Your task to perform on an android device: check android version Image 0: 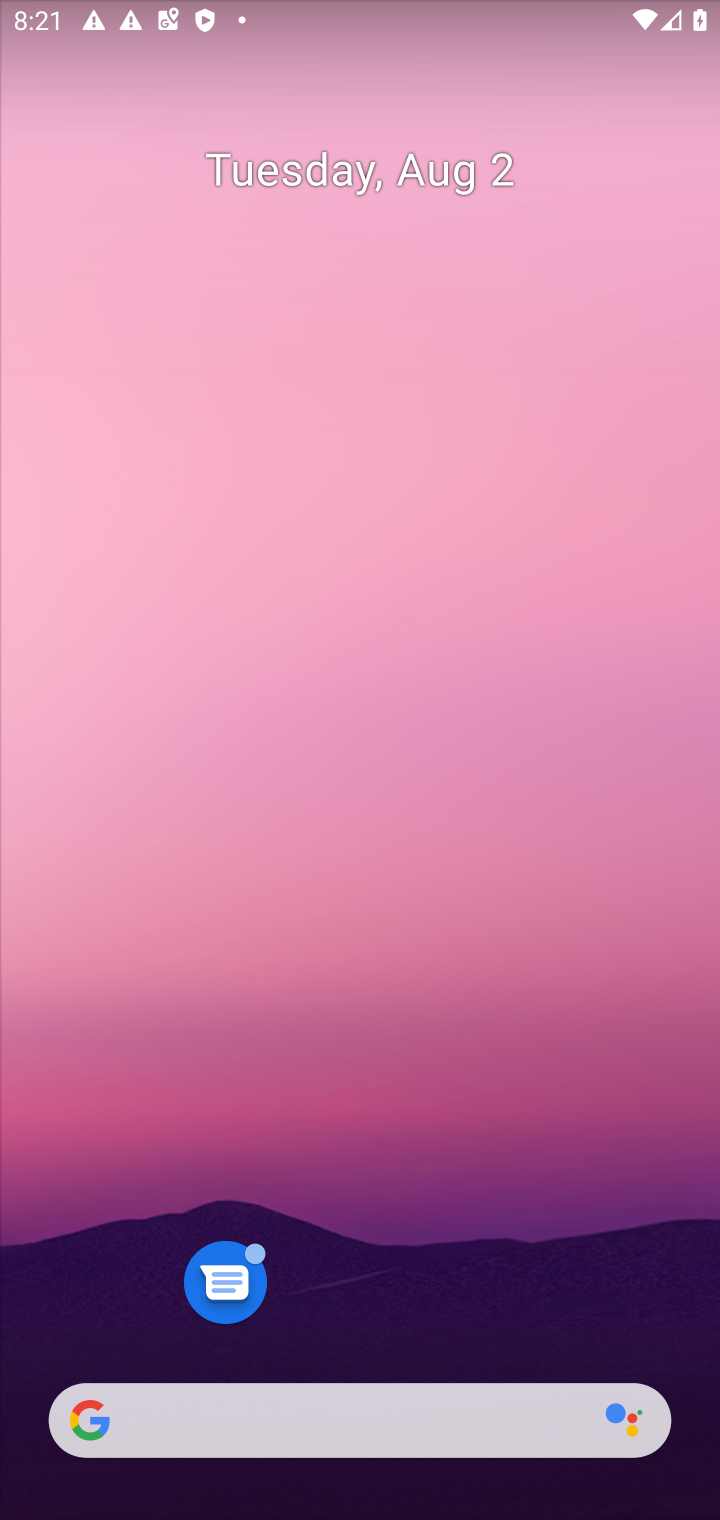
Step 0: drag from (360, 1268) to (349, 0)
Your task to perform on an android device: check android version Image 1: 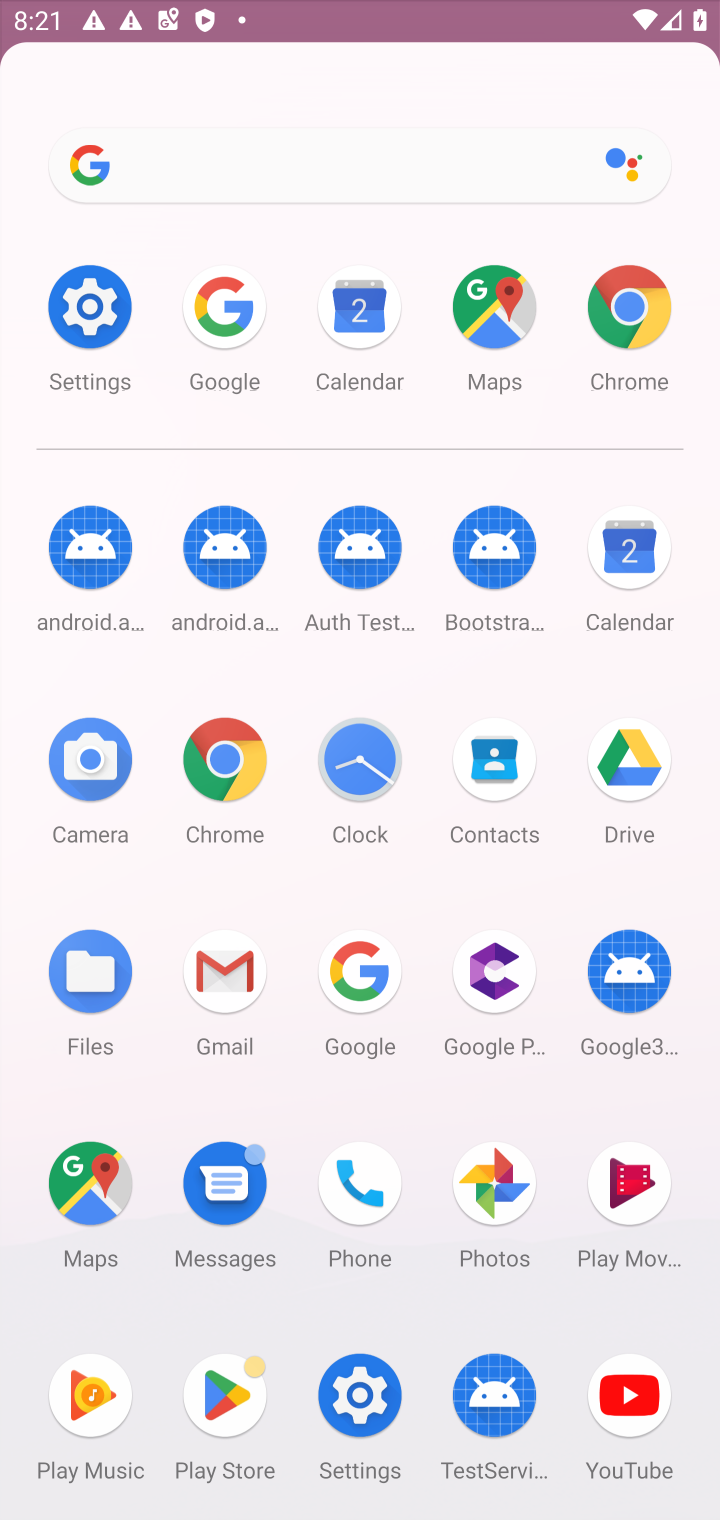
Step 1: click (100, 328)
Your task to perform on an android device: check android version Image 2: 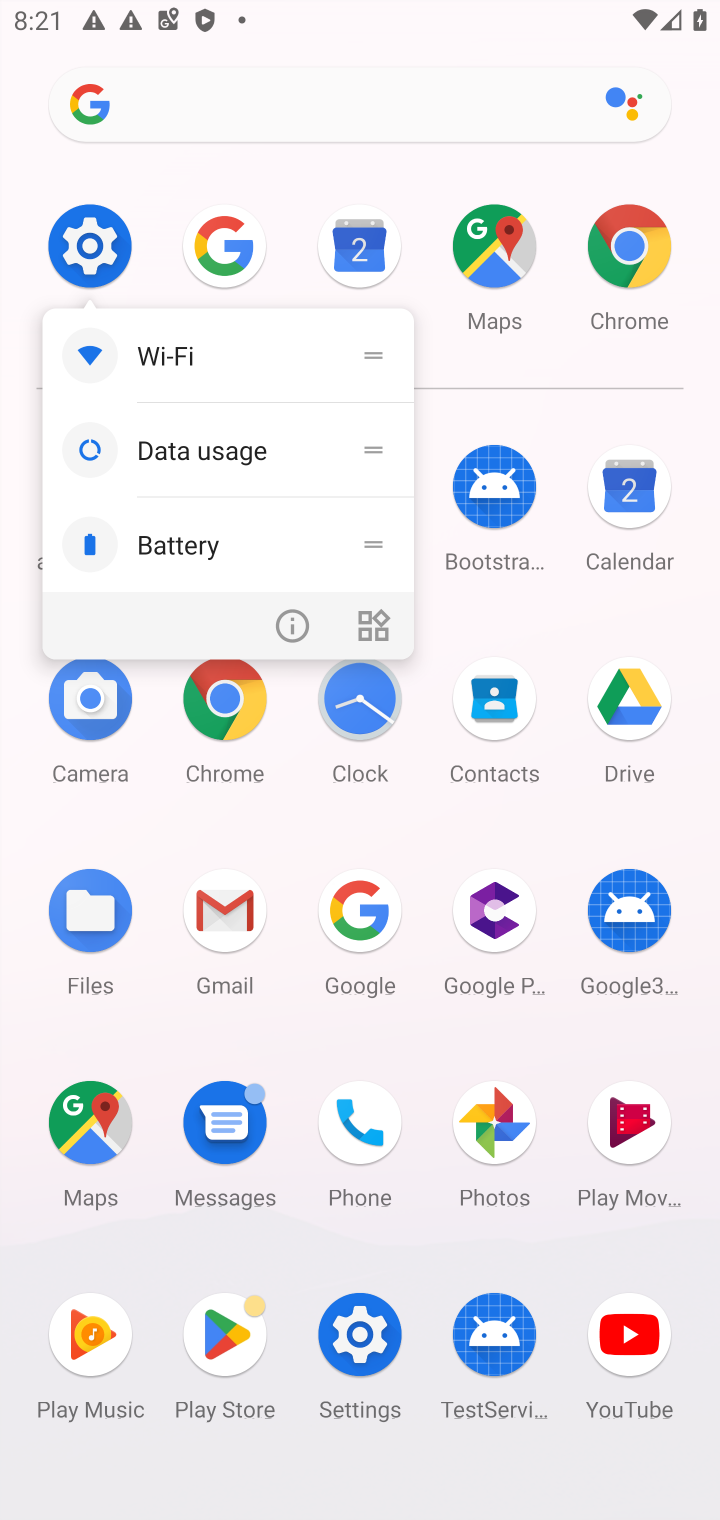
Step 2: click (363, 1332)
Your task to perform on an android device: check android version Image 3: 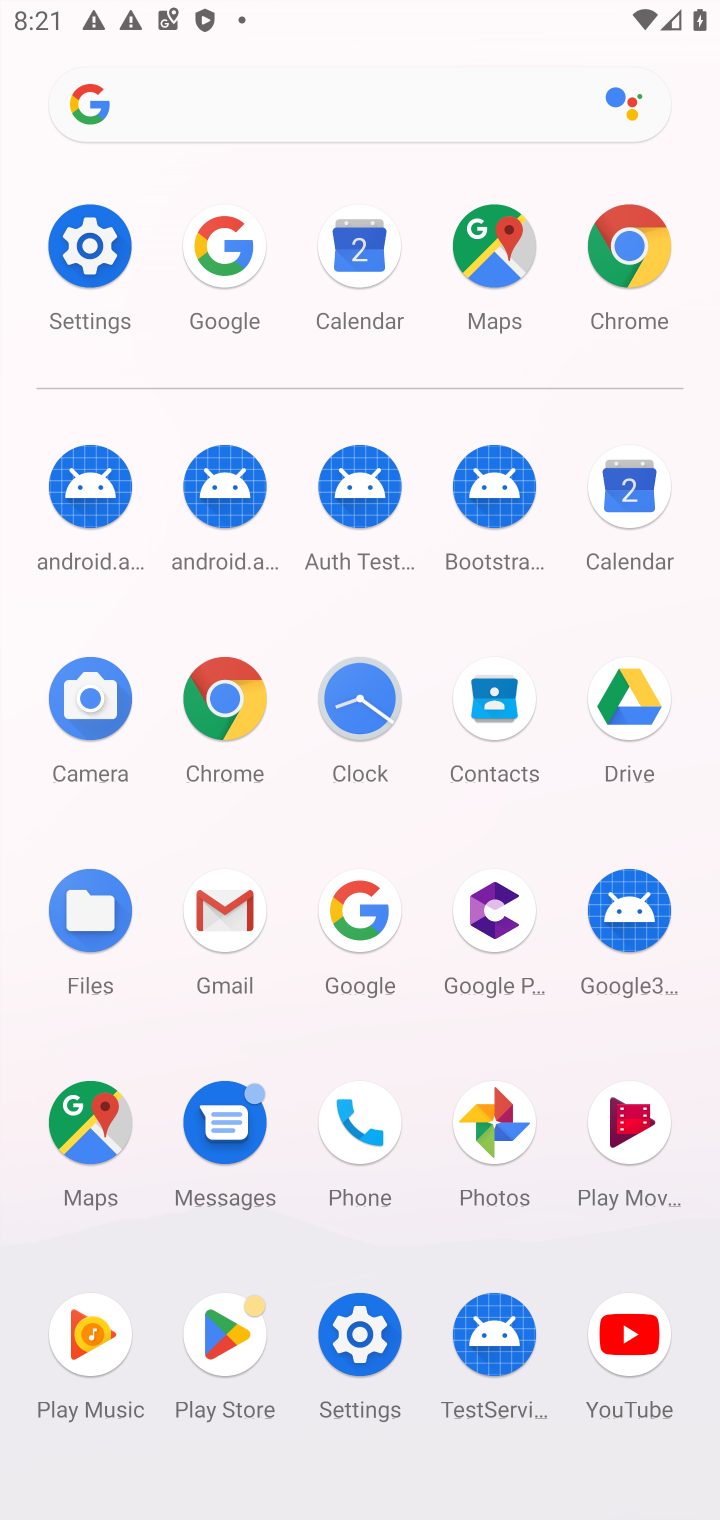
Step 3: click (365, 1318)
Your task to perform on an android device: check android version Image 4: 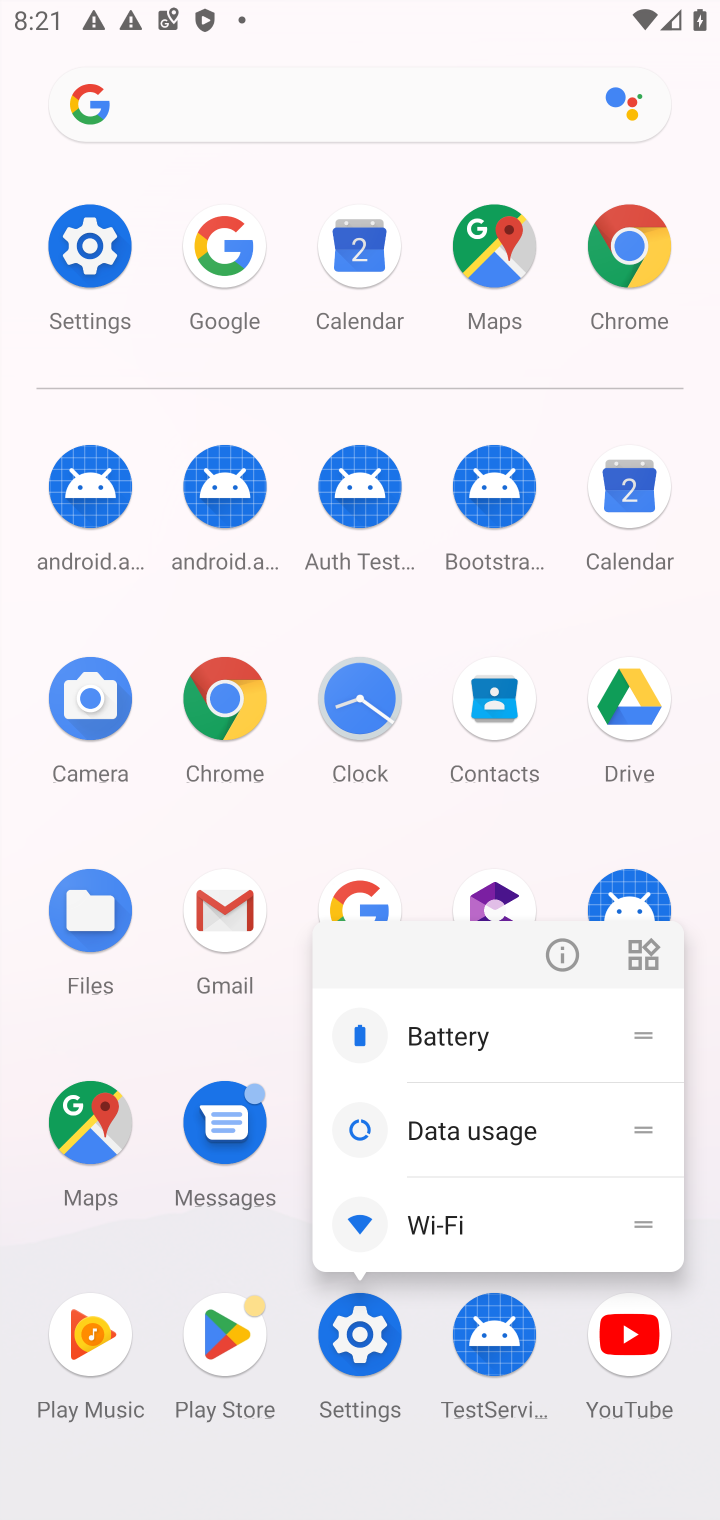
Step 4: click (361, 1316)
Your task to perform on an android device: check android version Image 5: 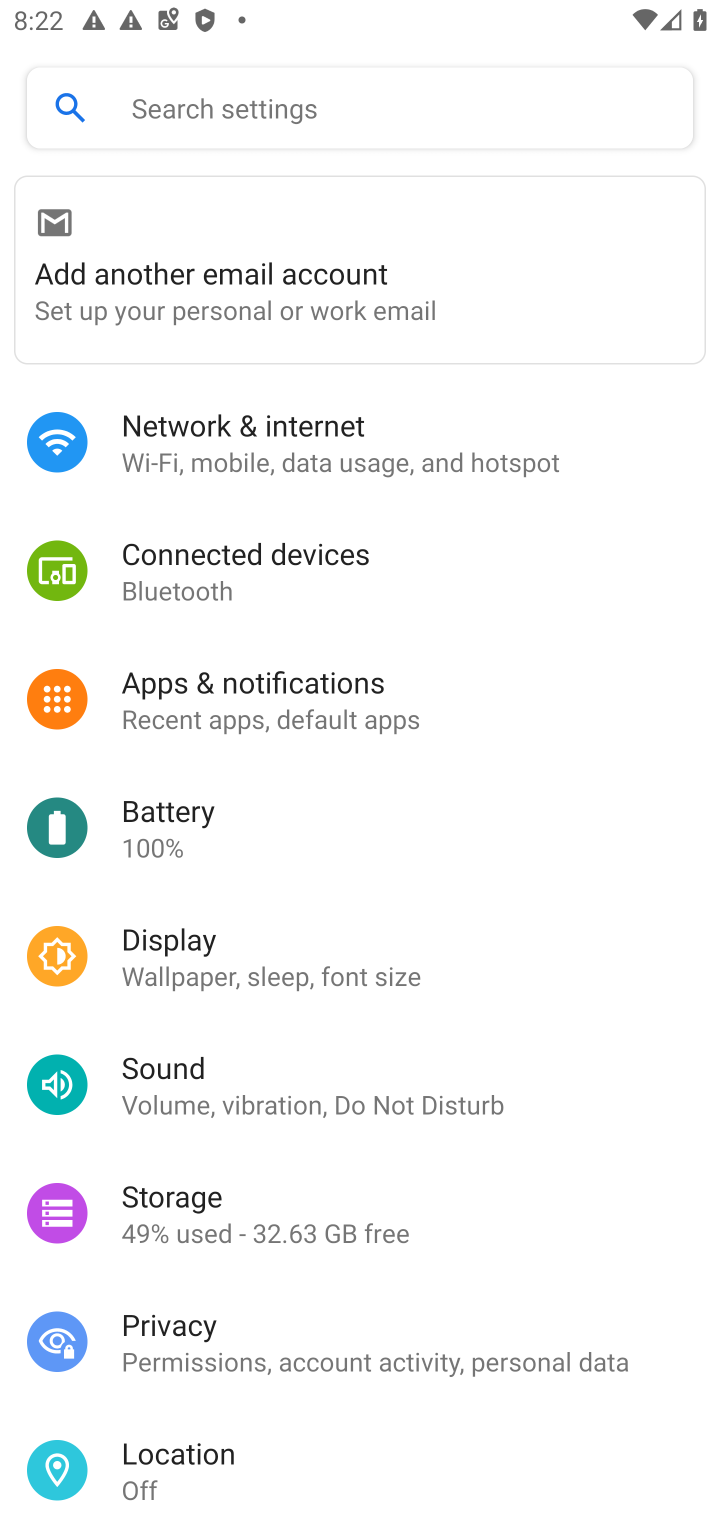
Step 5: drag from (261, 1230) to (151, 376)
Your task to perform on an android device: check android version Image 6: 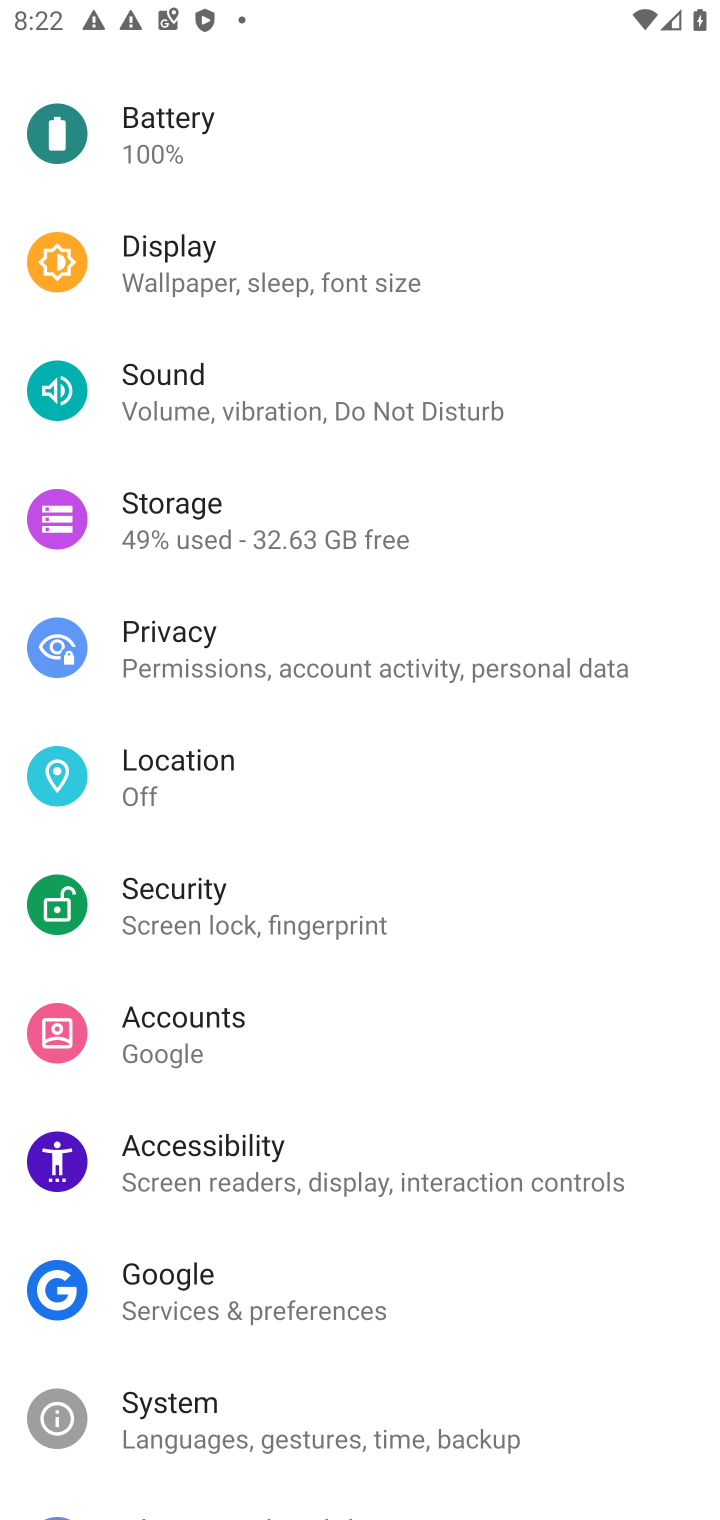
Step 6: drag from (323, 1242) to (291, 377)
Your task to perform on an android device: check android version Image 7: 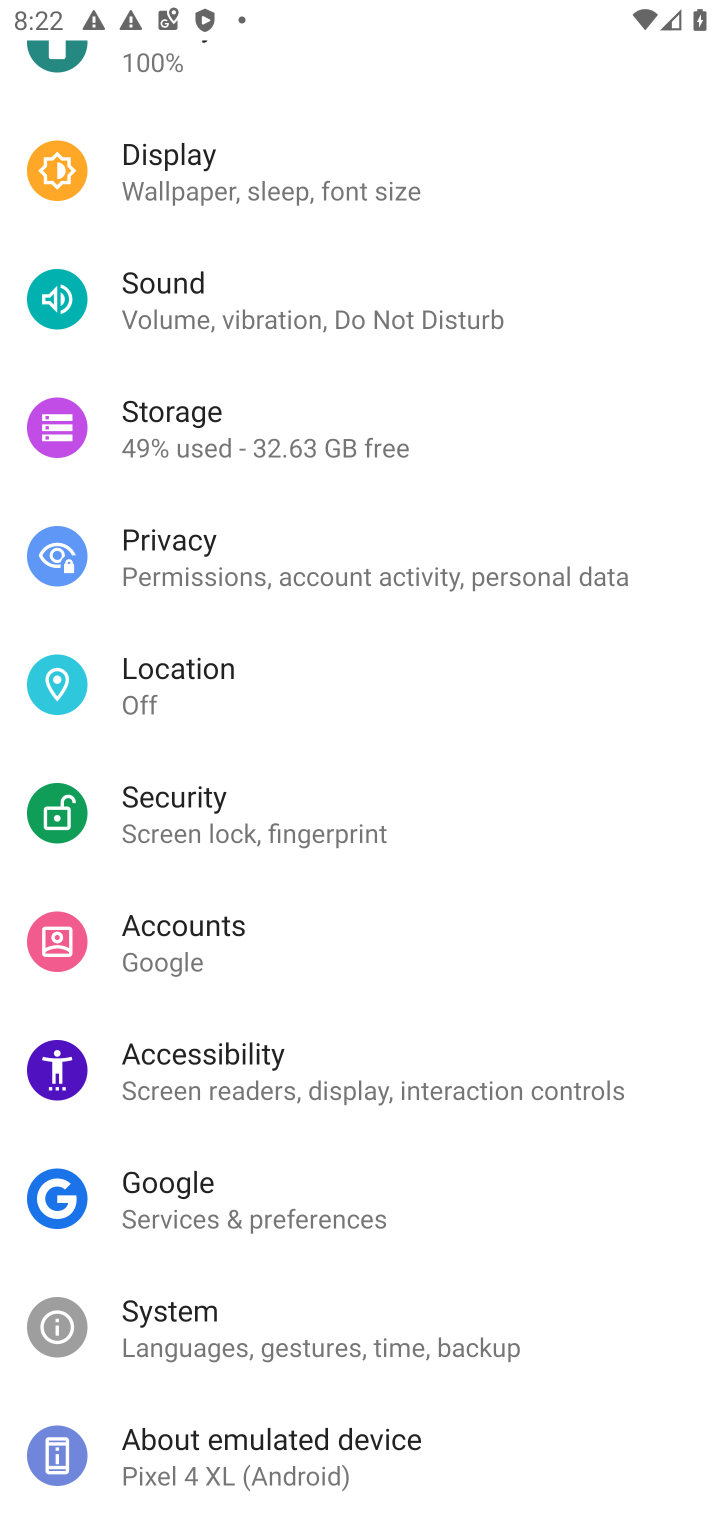
Step 7: click (300, 1462)
Your task to perform on an android device: check android version Image 8: 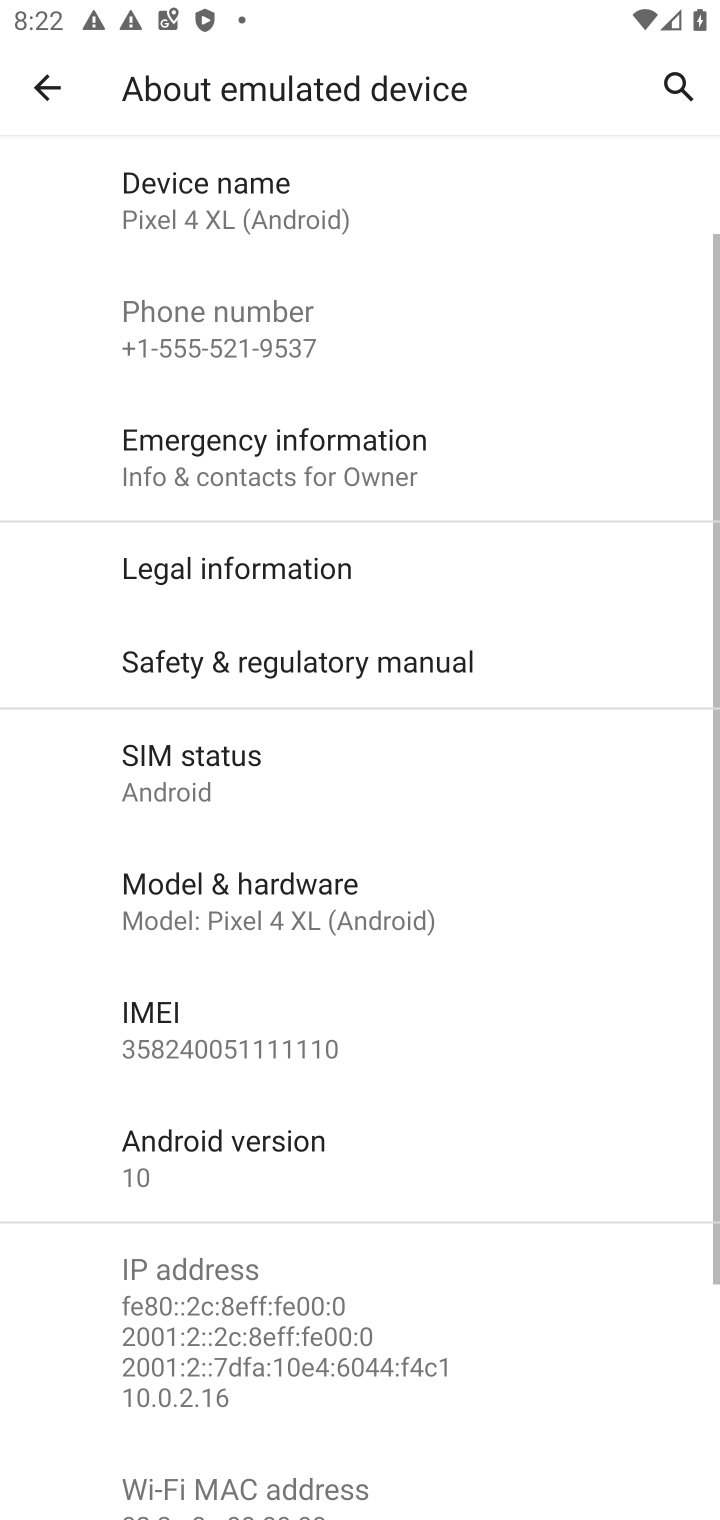
Step 8: click (230, 1146)
Your task to perform on an android device: check android version Image 9: 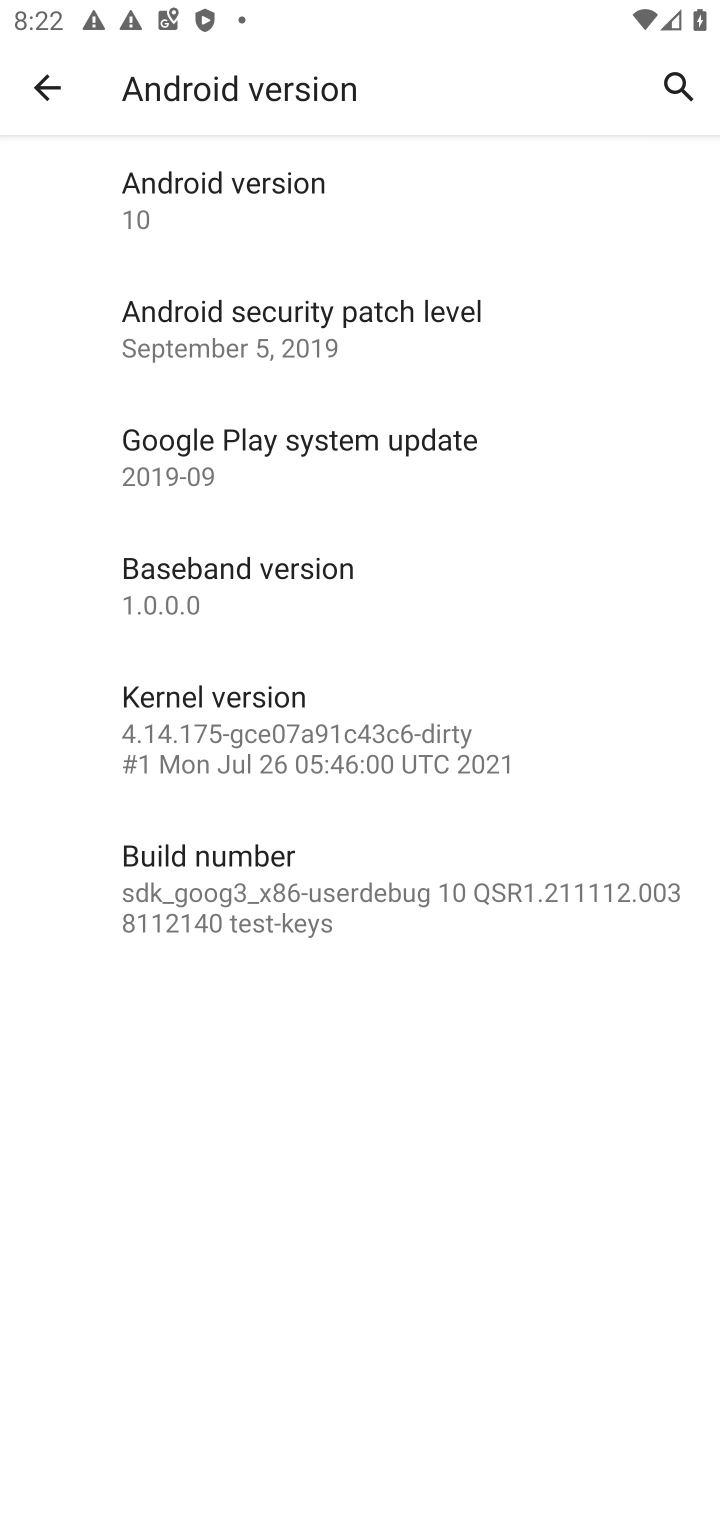
Step 9: click (255, 159)
Your task to perform on an android device: check android version Image 10: 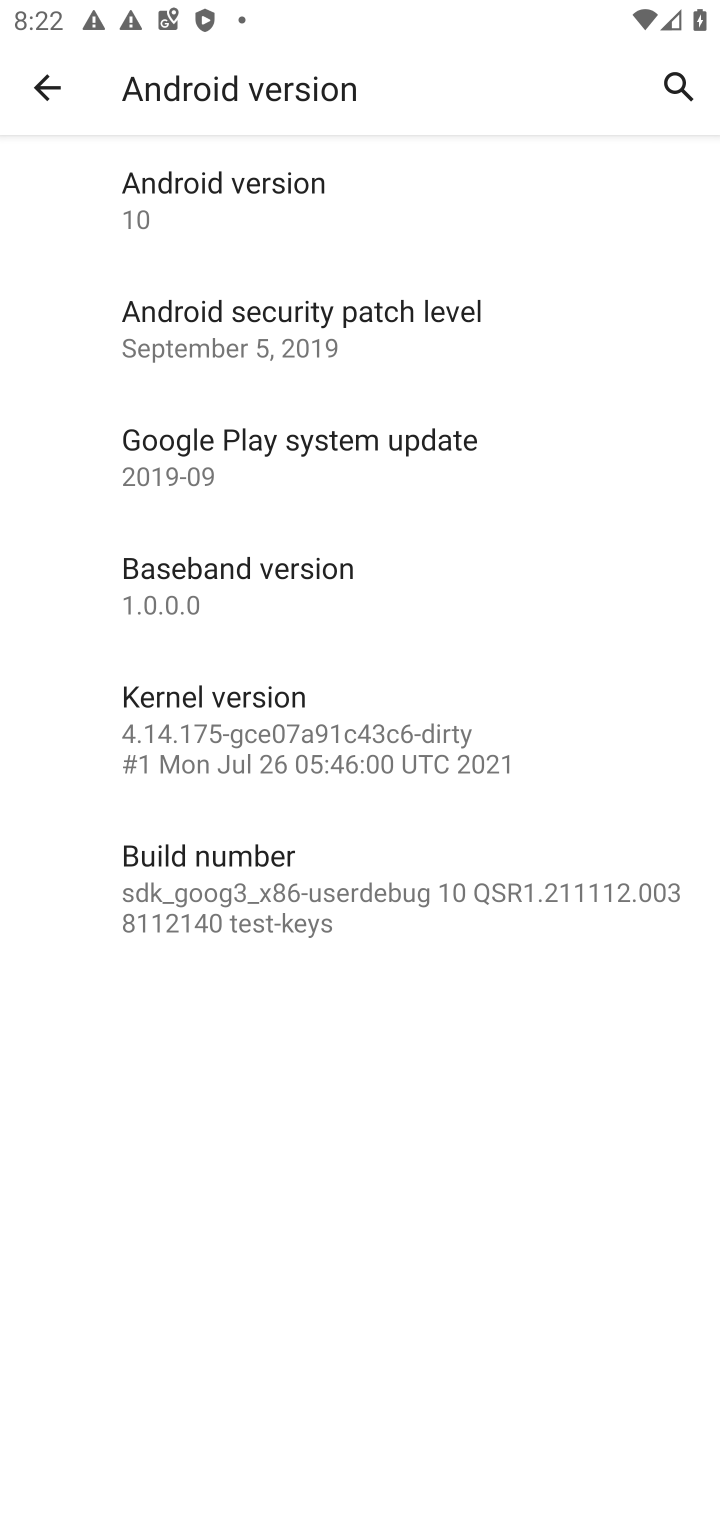
Step 10: task complete